Your task to perform on an android device: toggle translation in the chrome app Image 0: 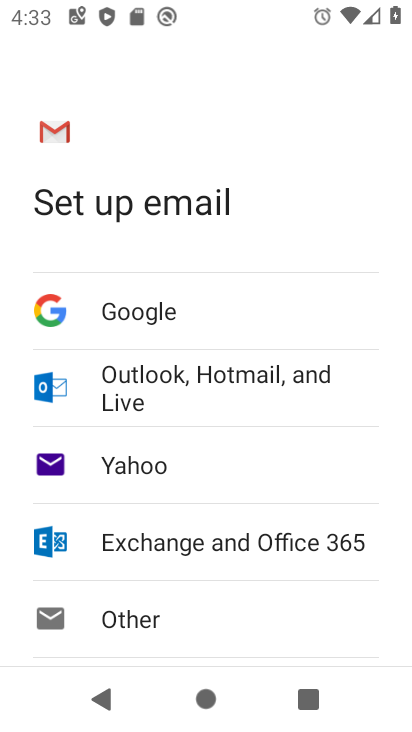
Step 0: press home button
Your task to perform on an android device: toggle translation in the chrome app Image 1: 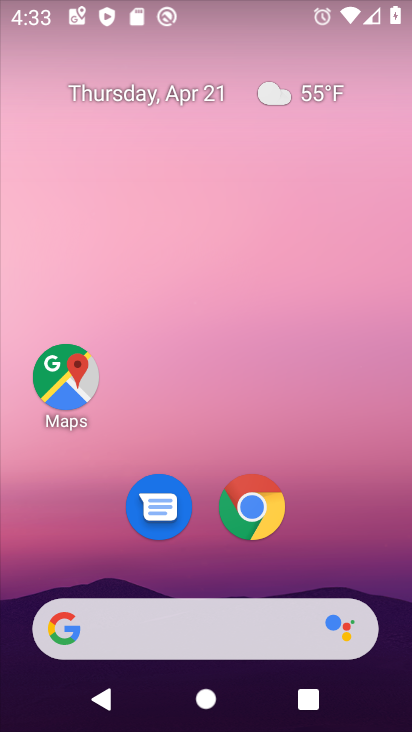
Step 1: drag from (336, 512) to (304, 76)
Your task to perform on an android device: toggle translation in the chrome app Image 2: 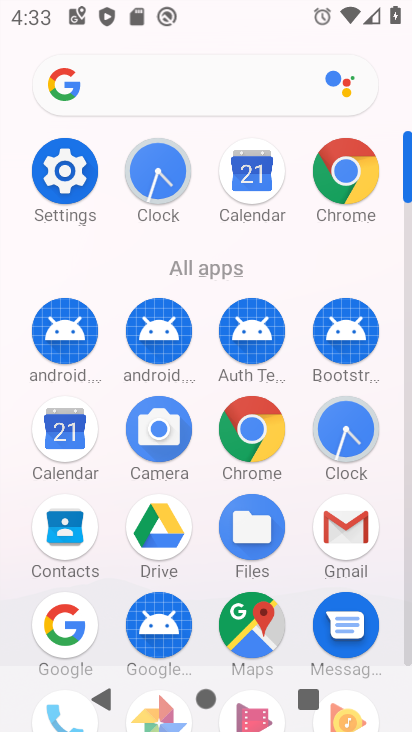
Step 2: click (335, 192)
Your task to perform on an android device: toggle translation in the chrome app Image 3: 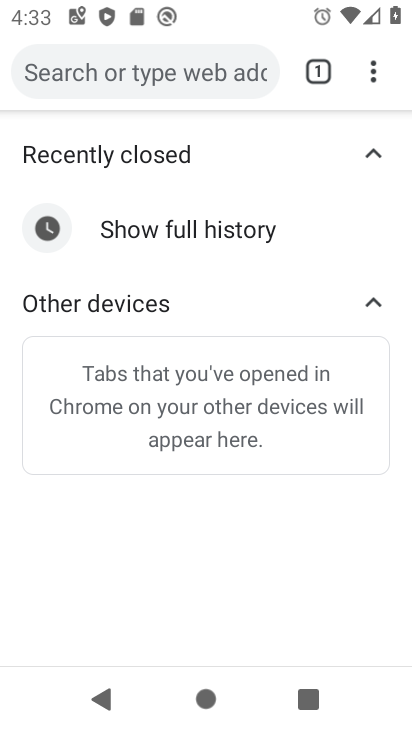
Step 3: drag from (372, 91) to (135, 509)
Your task to perform on an android device: toggle translation in the chrome app Image 4: 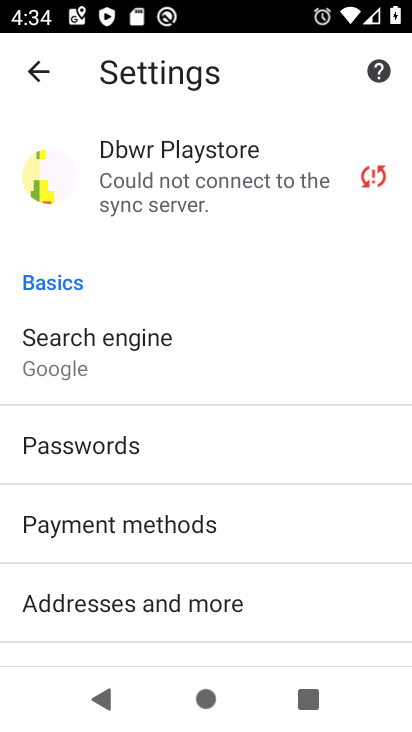
Step 4: drag from (214, 587) to (165, 245)
Your task to perform on an android device: toggle translation in the chrome app Image 5: 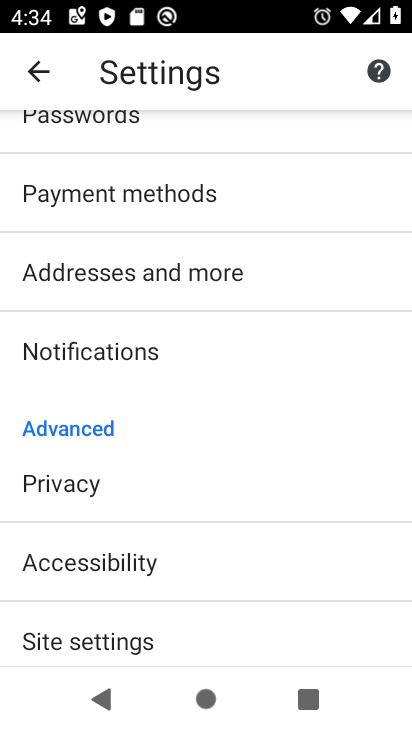
Step 5: drag from (264, 569) to (234, 267)
Your task to perform on an android device: toggle translation in the chrome app Image 6: 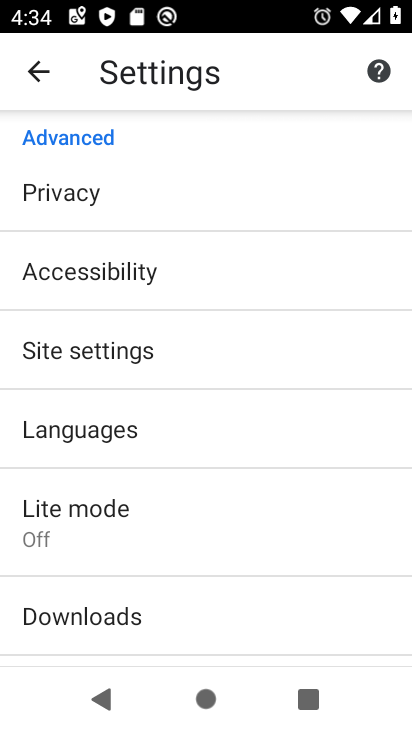
Step 6: click (144, 422)
Your task to perform on an android device: toggle translation in the chrome app Image 7: 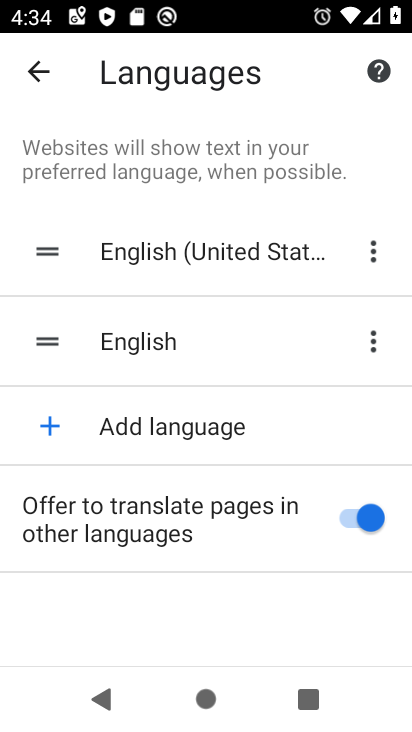
Step 7: click (362, 514)
Your task to perform on an android device: toggle translation in the chrome app Image 8: 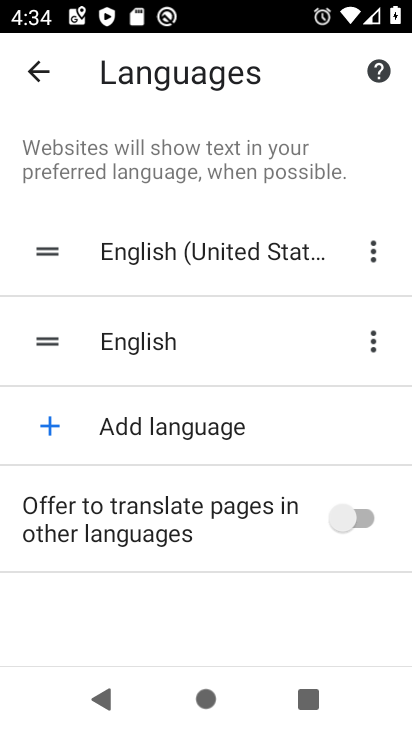
Step 8: task complete